Your task to perform on an android device: open a bookmark in the chrome app Image 0: 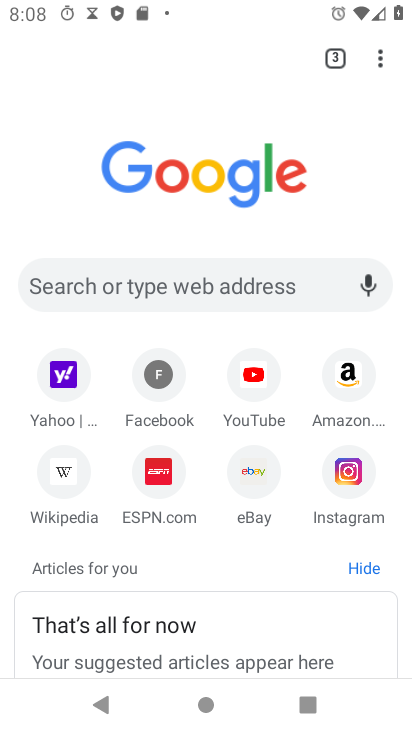
Step 0: click (377, 62)
Your task to perform on an android device: open a bookmark in the chrome app Image 1: 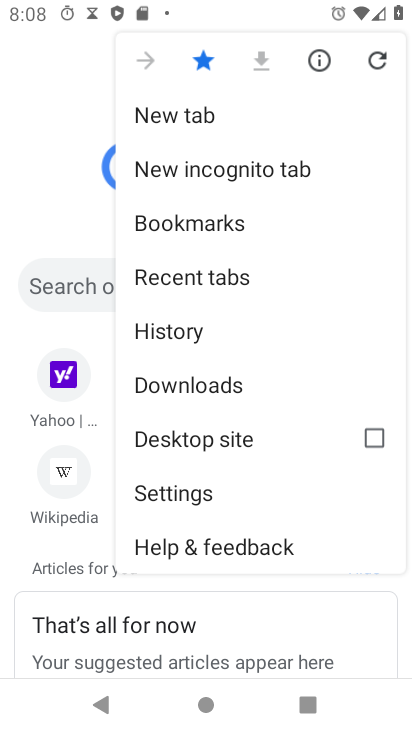
Step 1: click (208, 222)
Your task to perform on an android device: open a bookmark in the chrome app Image 2: 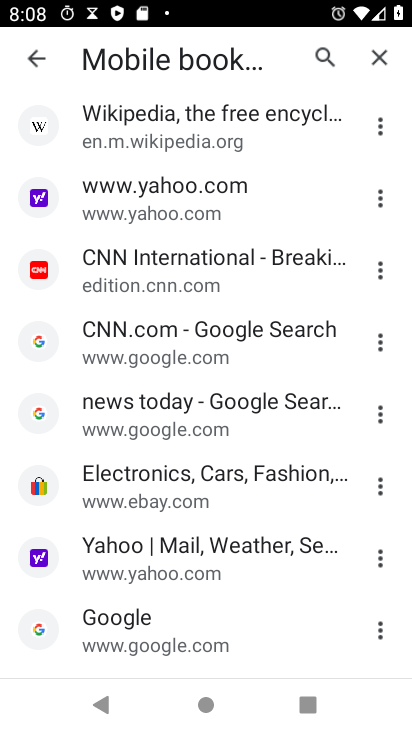
Step 2: click (203, 223)
Your task to perform on an android device: open a bookmark in the chrome app Image 3: 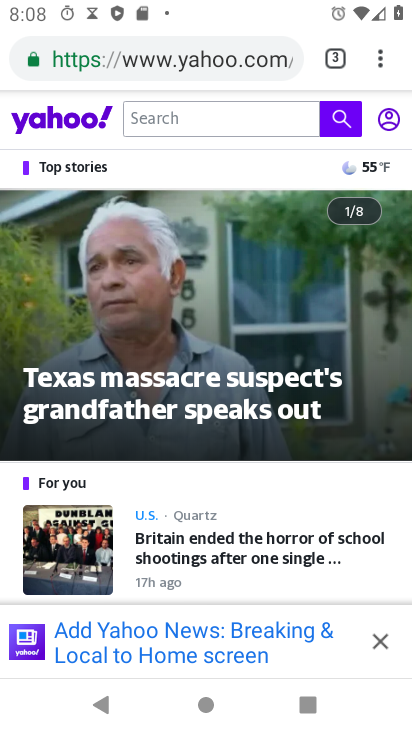
Step 3: task complete